Your task to perform on an android device: Set an alarm for 3pm Image 0: 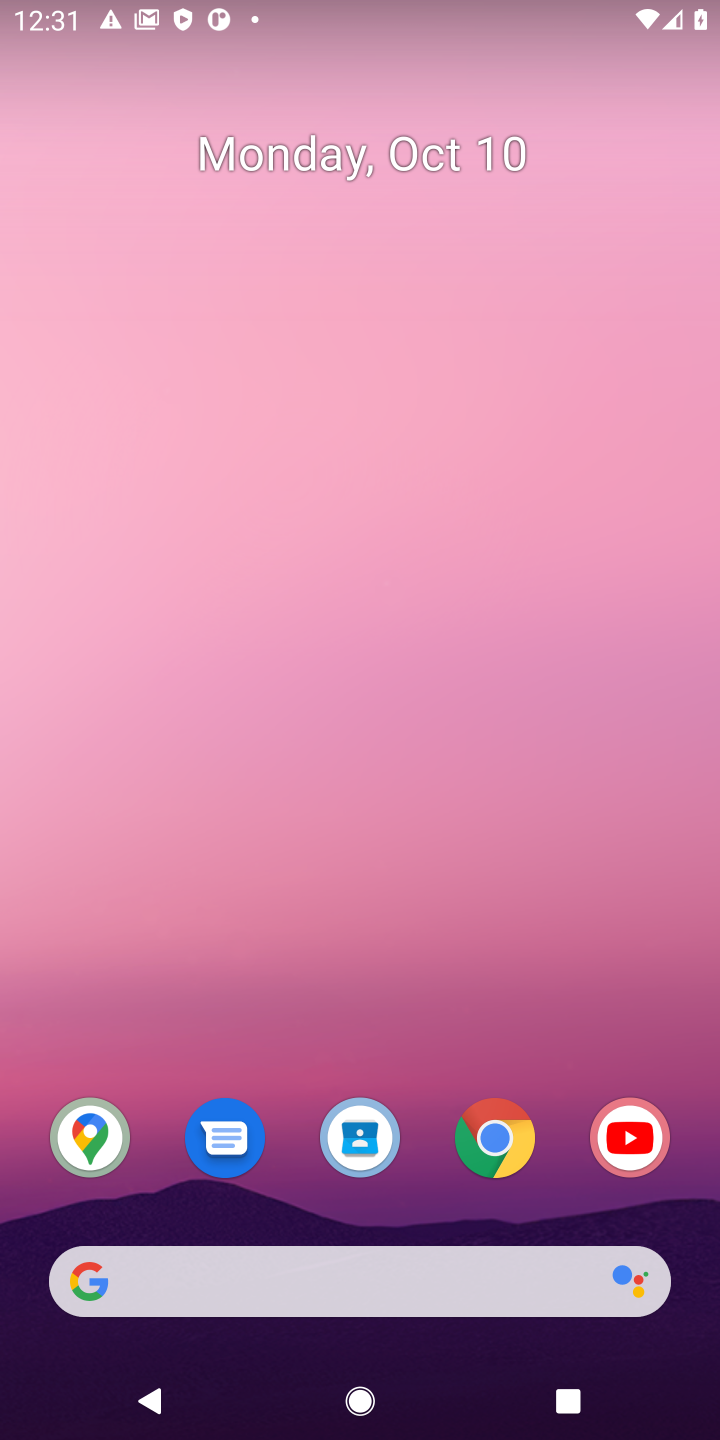
Step 0: drag from (391, 1298) to (325, 78)
Your task to perform on an android device: Set an alarm for 3pm Image 1: 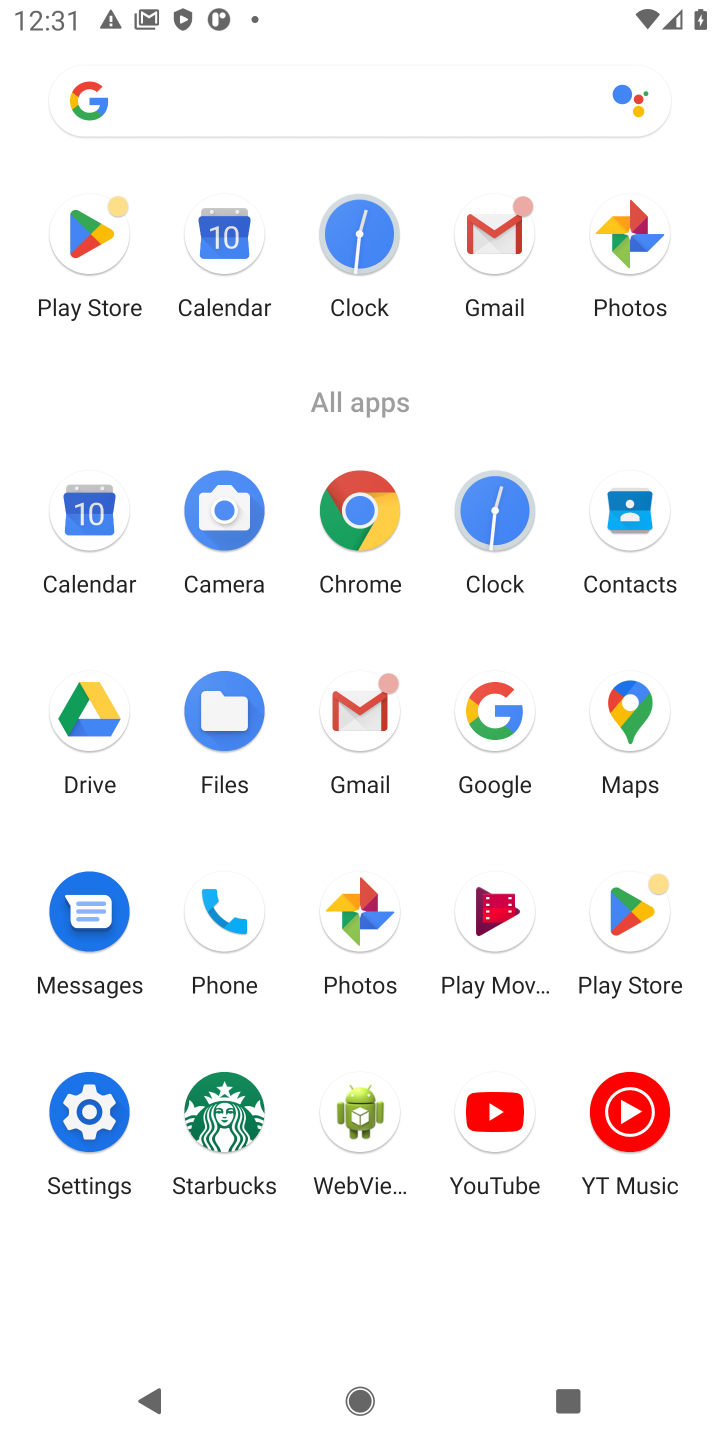
Step 1: click (484, 493)
Your task to perform on an android device: Set an alarm for 3pm Image 2: 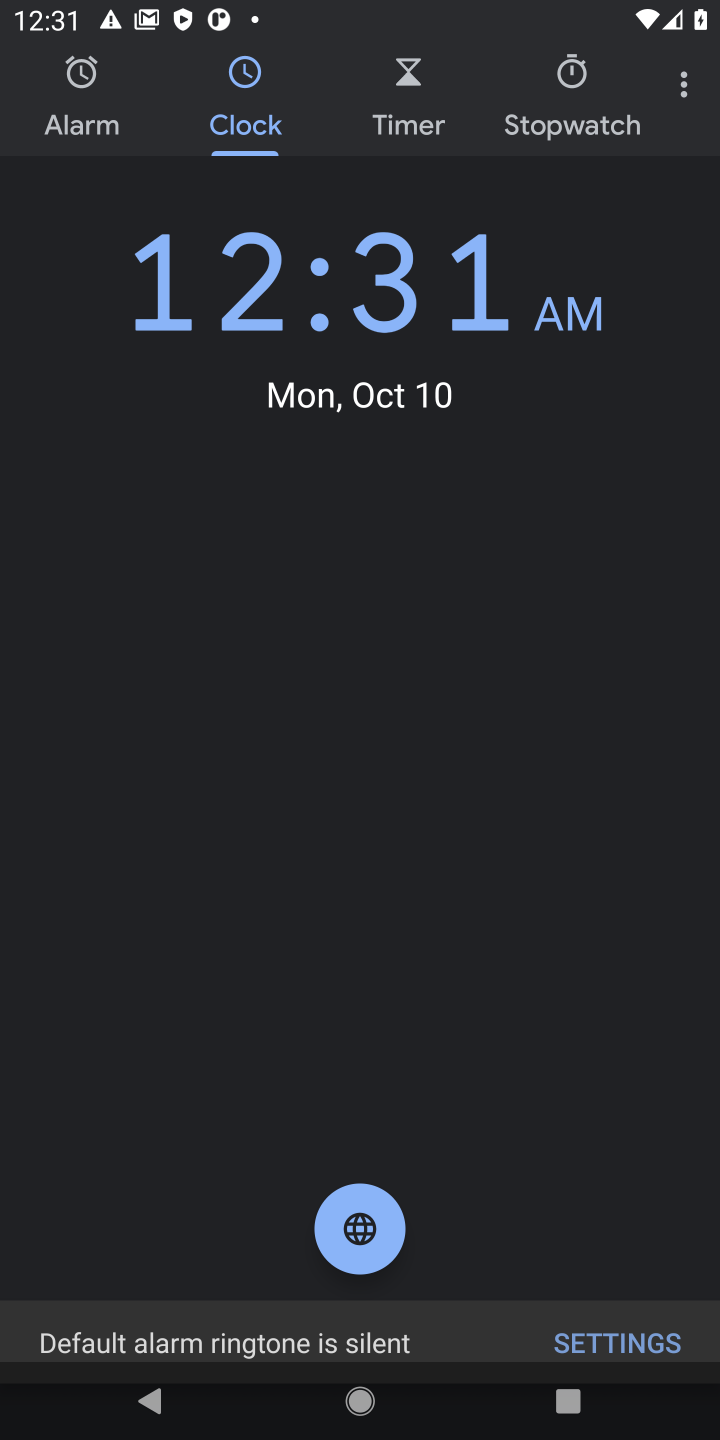
Step 2: click (65, 115)
Your task to perform on an android device: Set an alarm for 3pm Image 3: 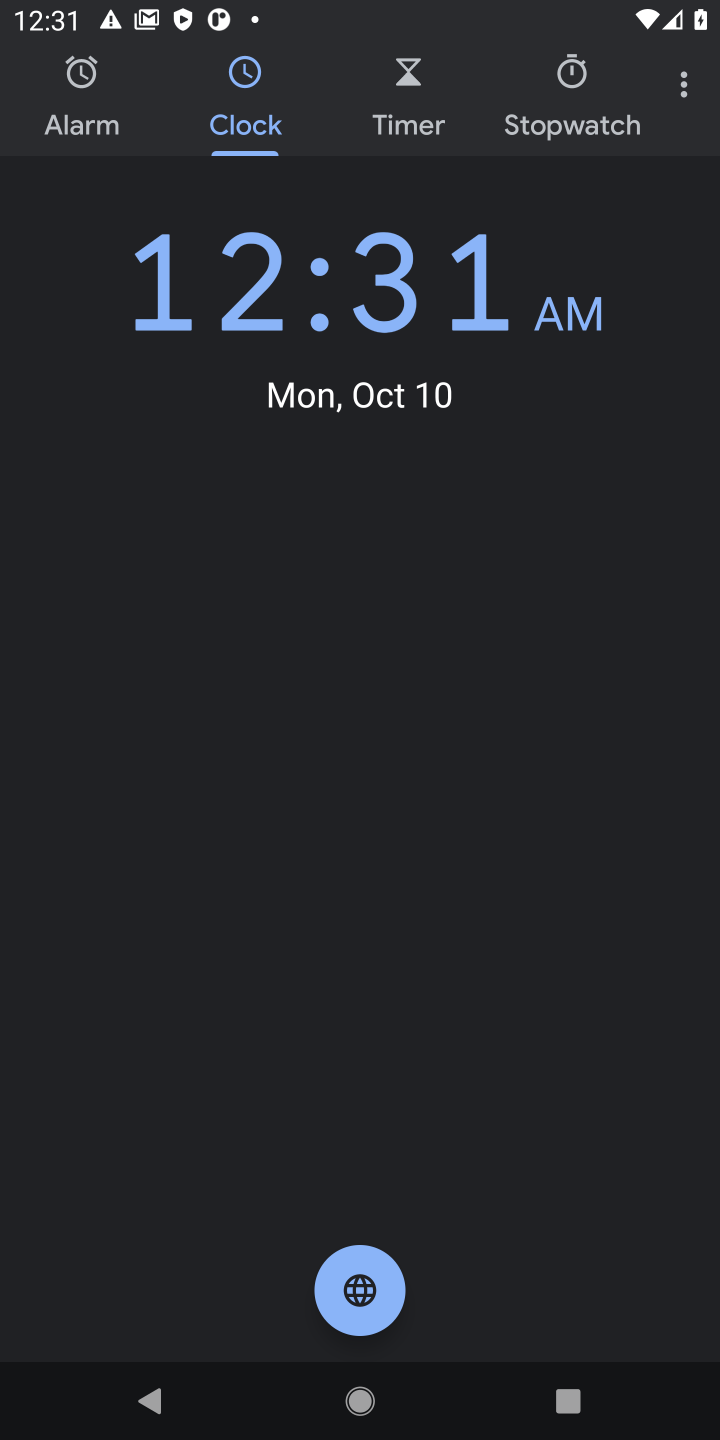
Step 3: click (97, 131)
Your task to perform on an android device: Set an alarm for 3pm Image 4: 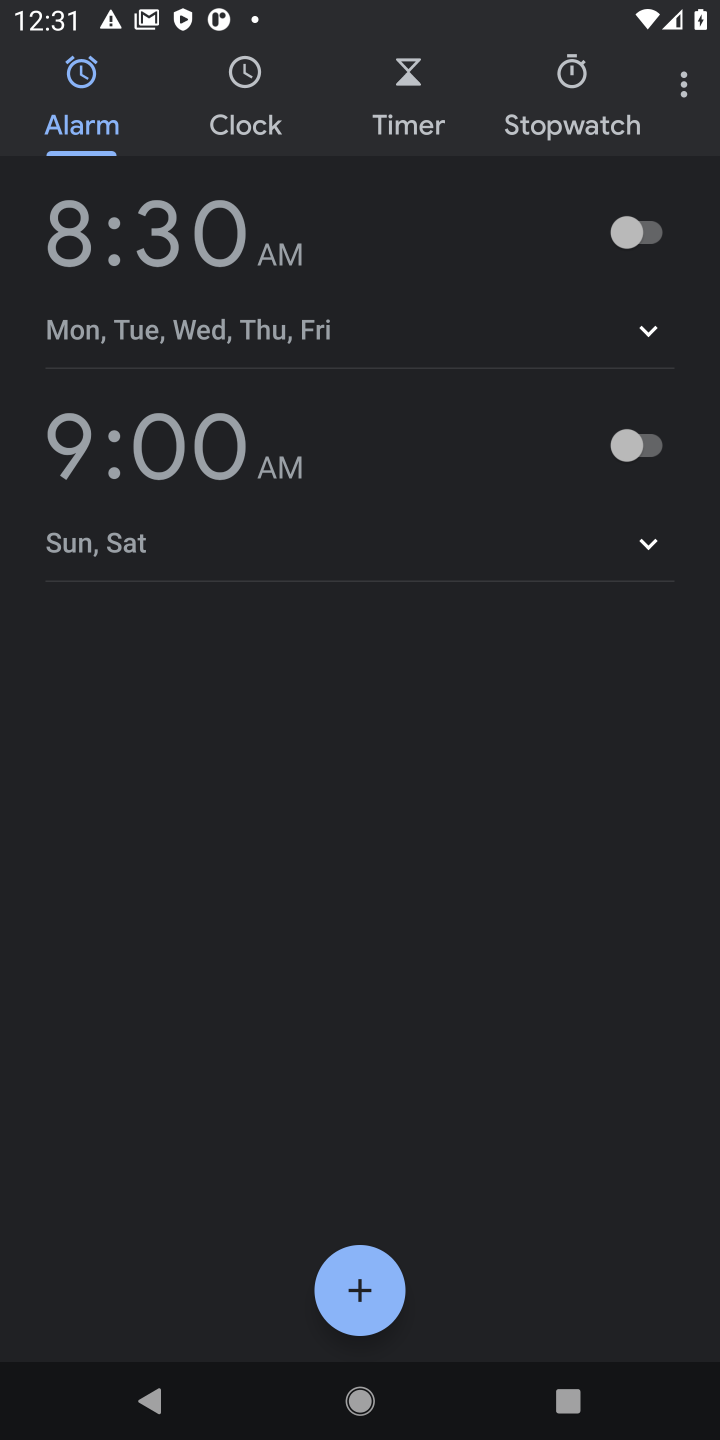
Step 4: click (378, 1298)
Your task to perform on an android device: Set an alarm for 3pm Image 5: 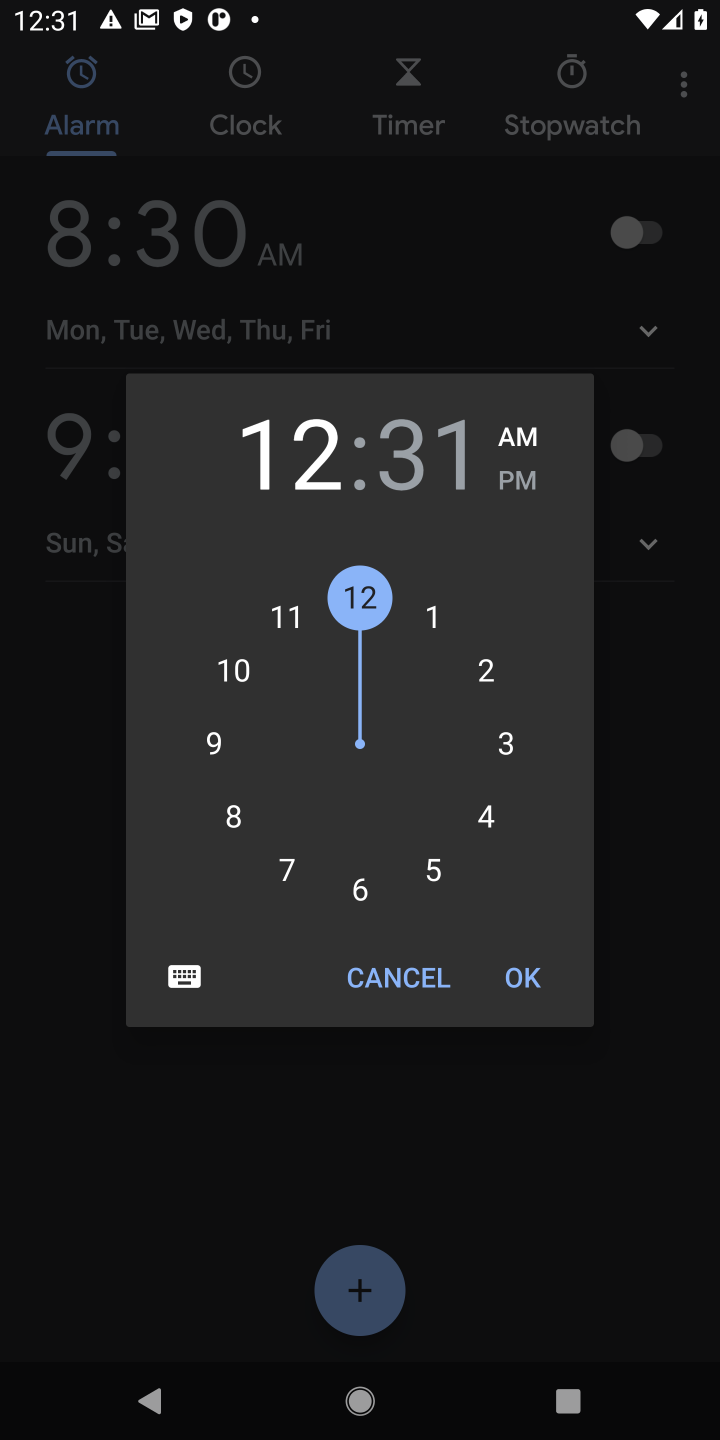
Step 5: click (515, 749)
Your task to perform on an android device: Set an alarm for 3pm Image 6: 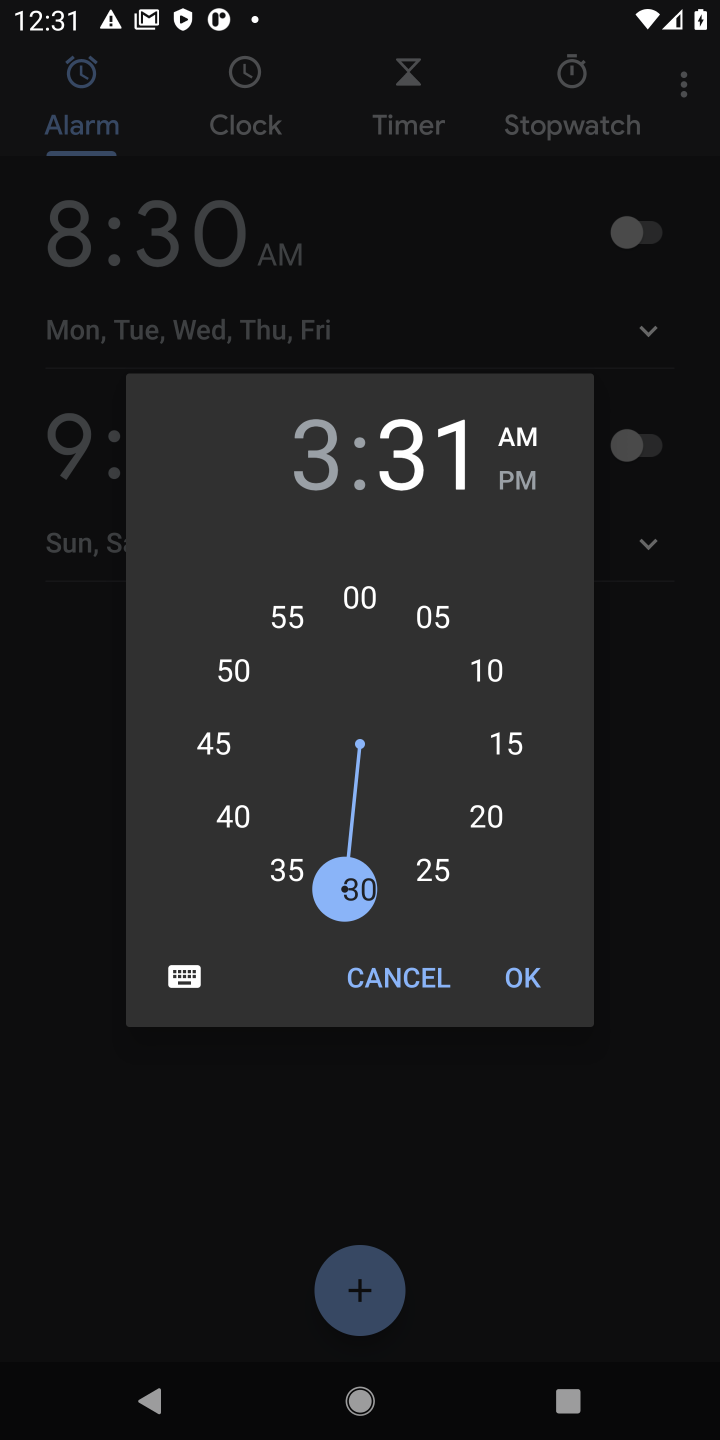
Step 6: click (378, 600)
Your task to perform on an android device: Set an alarm for 3pm Image 7: 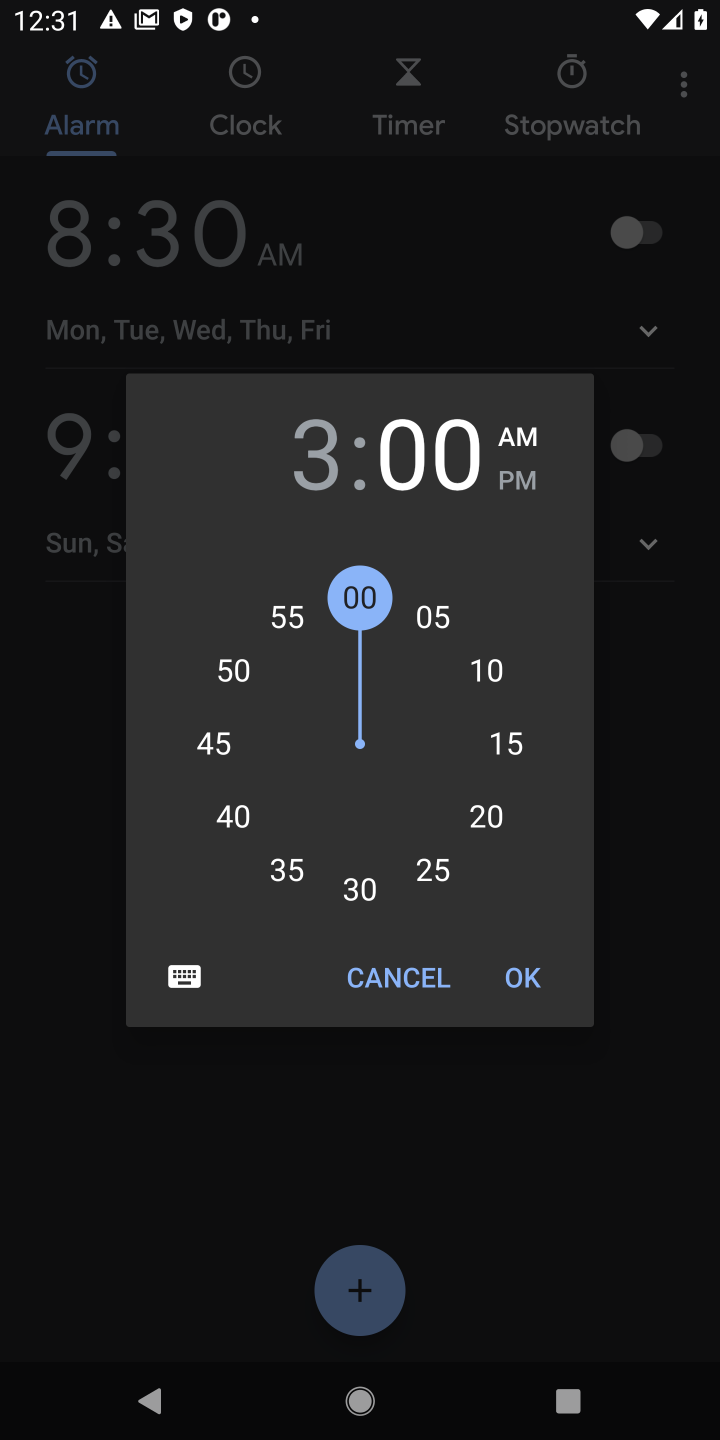
Step 7: click (521, 481)
Your task to perform on an android device: Set an alarm for 3pm Image 8: 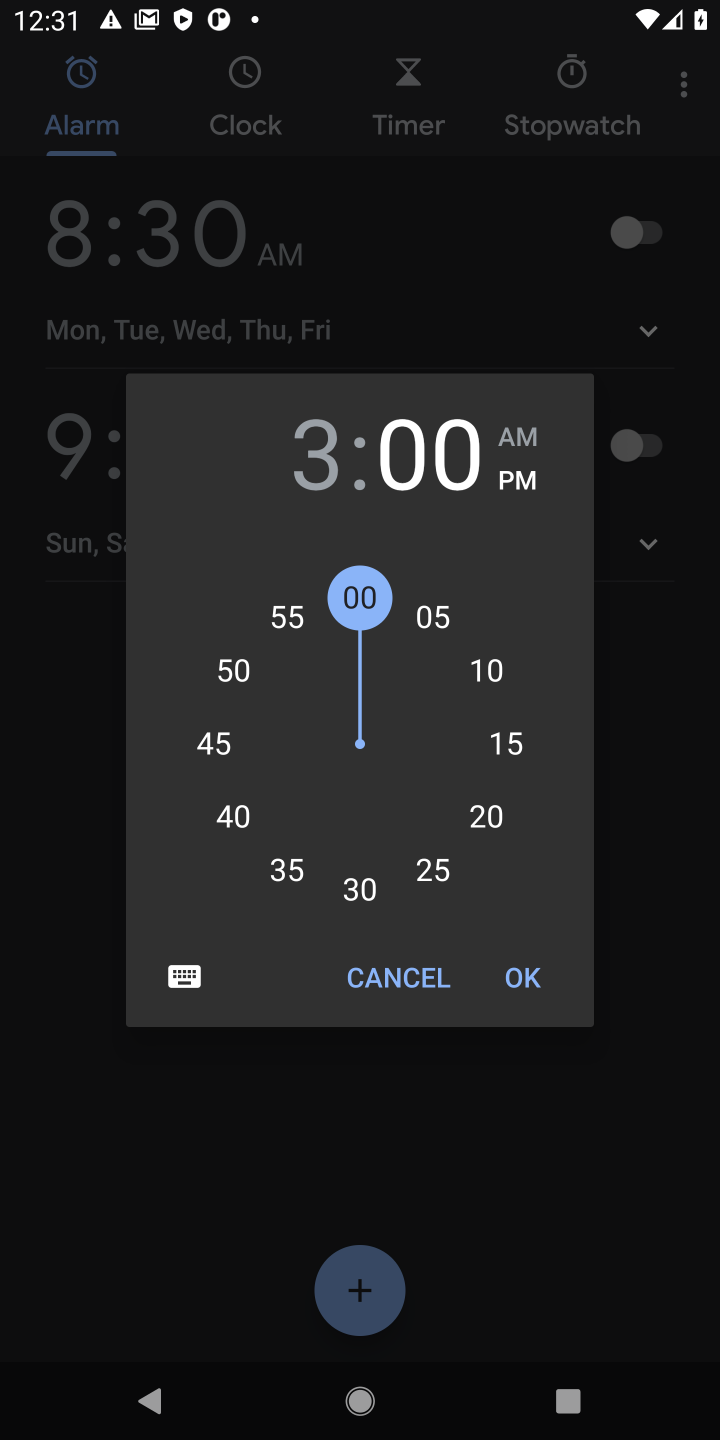
Step 8: click (520, 981)
Your task to perform on an android device: Set an alarm for 3pm Image 9: 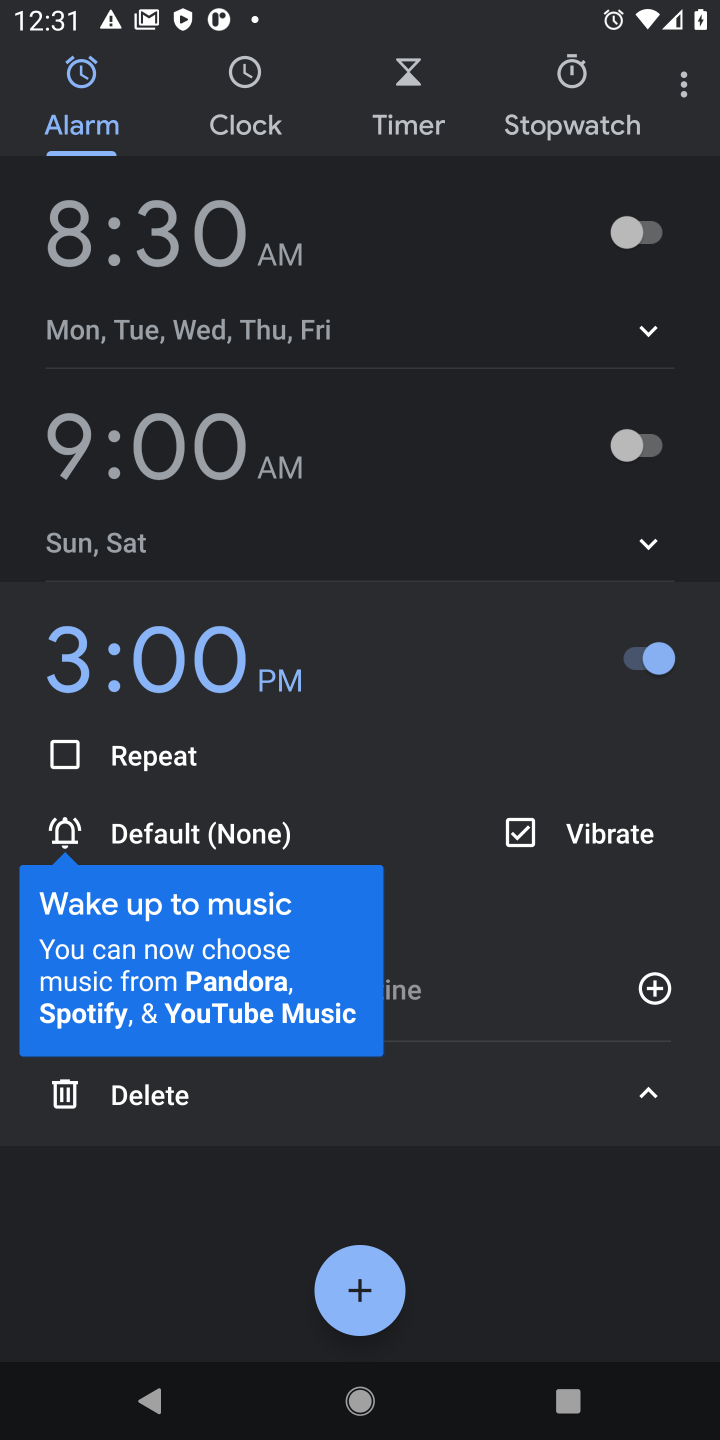
Step 9: task complete